Your task to perform on an android device: turn on airplane mode Image 0: 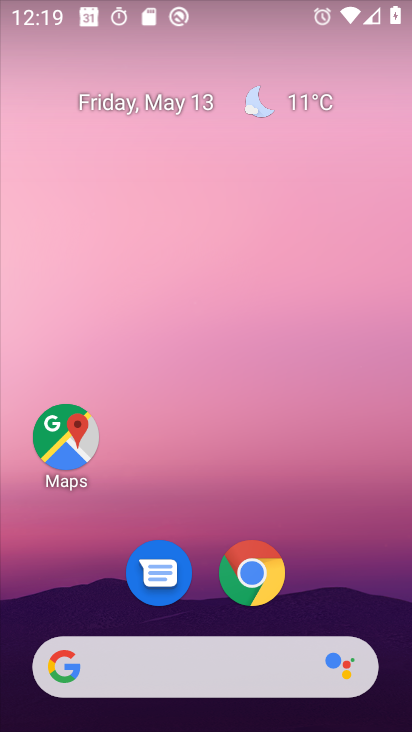
Step 0: drag from (395, 687) to (379, 350)
Your task to perform on an android device: turn on airplane mode Image 1: 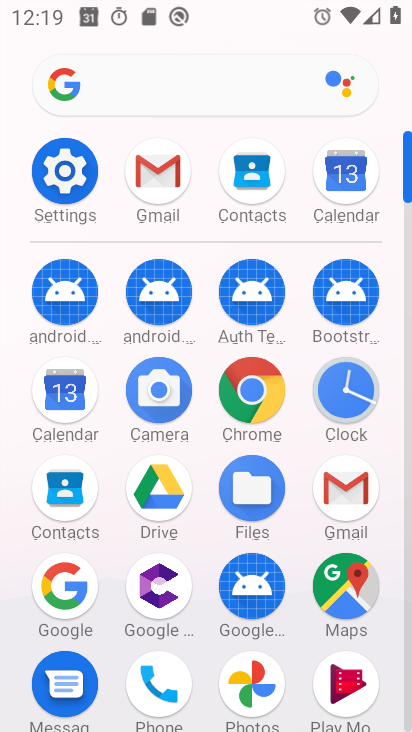
Step 1: click (55, 171)
Your task to perform on an android device: turn on airplane mode Image 2: 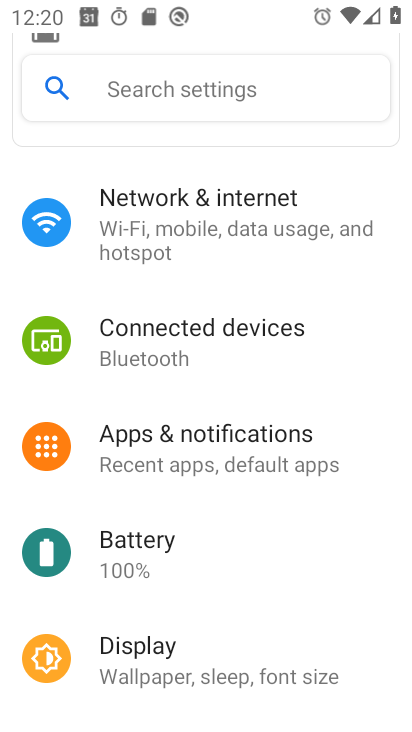
Step 2: click (169, 229)
Your task to perform on an android device: turn on airplane mode Image 3: 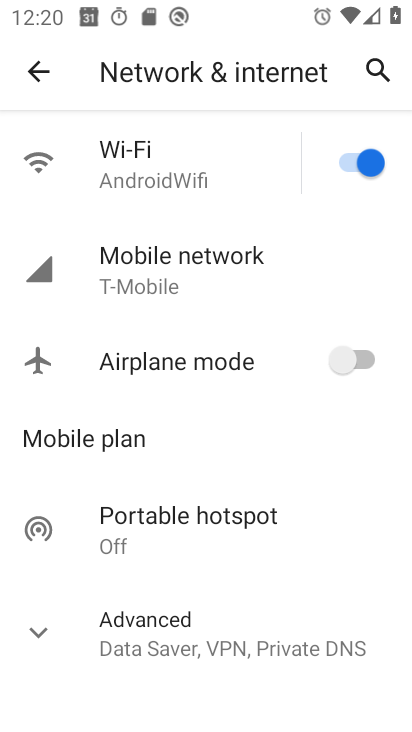
Step 3: click (363, 359)
Your task to perform on an android device: turn on airplane mode Image 4: 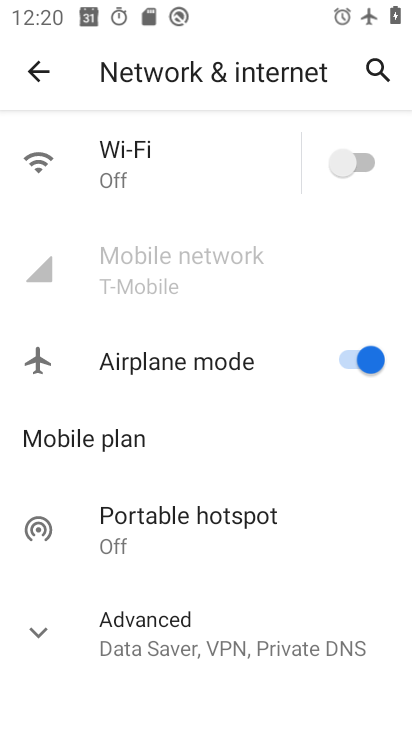
Step 4: task complete